Your task to perform on an android device: allow cookies in the chrome app Image 0: 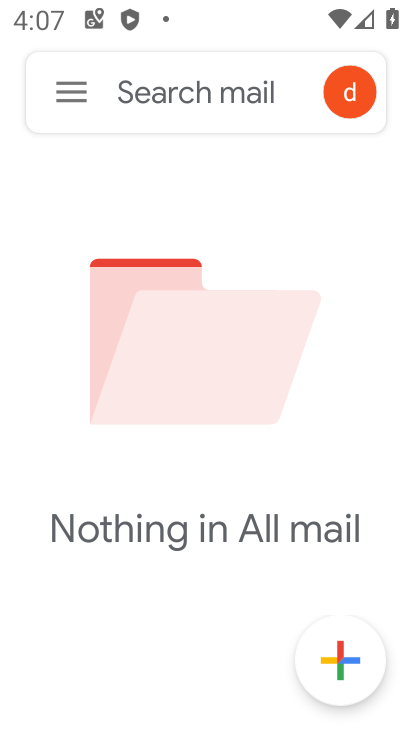
Step 0: press home button
Your task to perform on an android device: allow cookies in the chrome app Image 1: 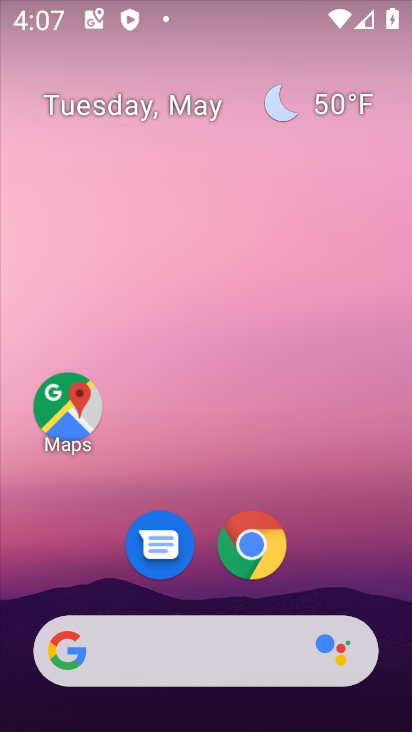
Step 1: click (257, 537)
Your task to perform on an android device: allow cookies in the chrome app Image 2: 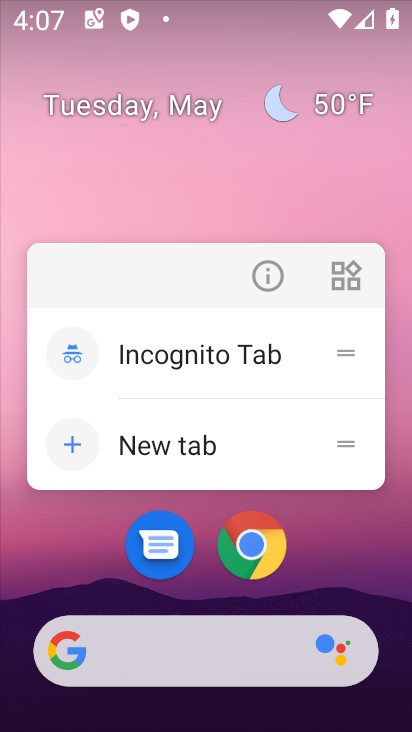
Step 2: click (251, 560)
Your task to perform on an android device: allow cookies in the chrome app Image 3: 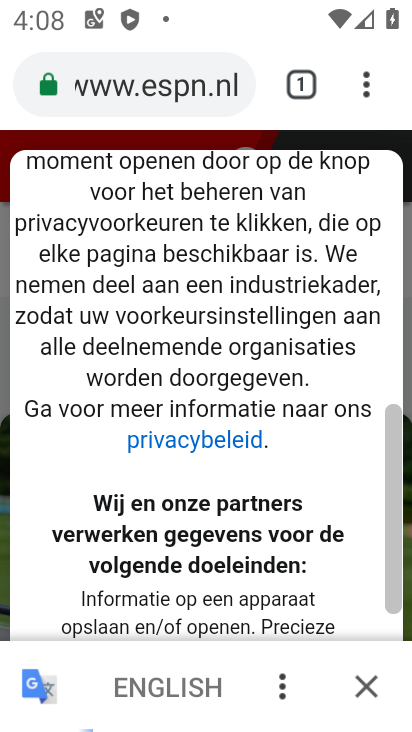
Step 3: click (364, 100)
Your task to perform on an android device: allow cookies in the chrome app Image 4: 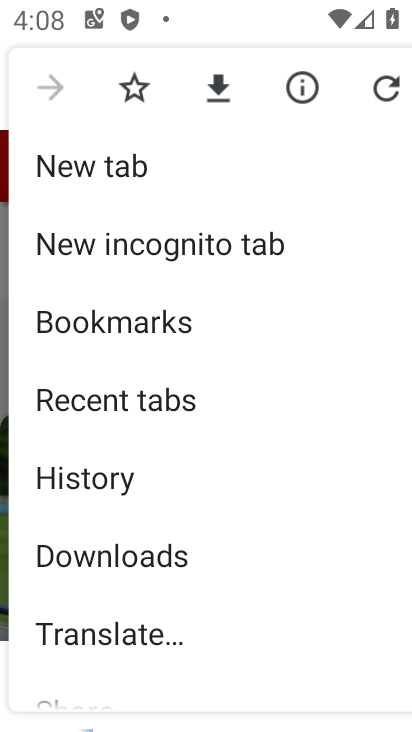
Step 4: drag from (179, 529) to (201, 283)
Your task to perform on an android device: allow cookies in the chrome app Image 5: 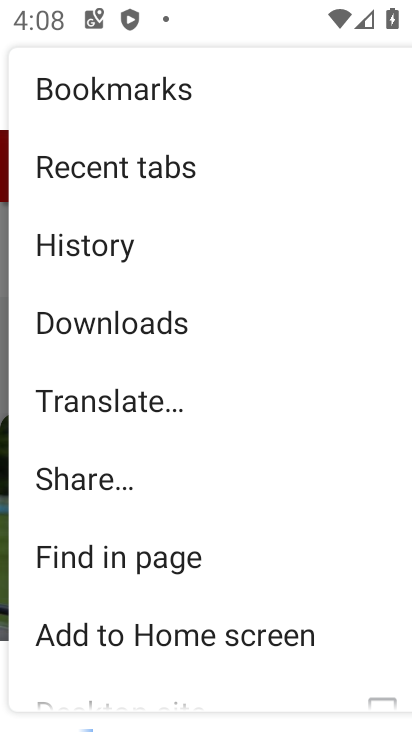
Step 5: drag from (163, 577) to (195, 248)
Your task to perform on an android device: allow cookies in the chrome app Image 6: 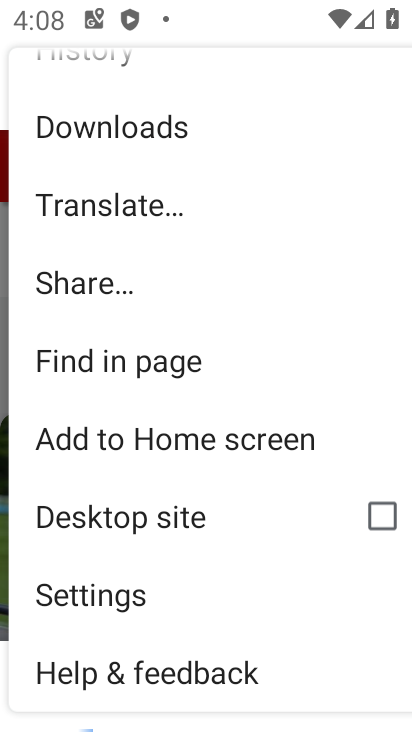
Step 6: click (123, 584)
Your task to perform on an android device: allow cookies in the chrome app Image 7: 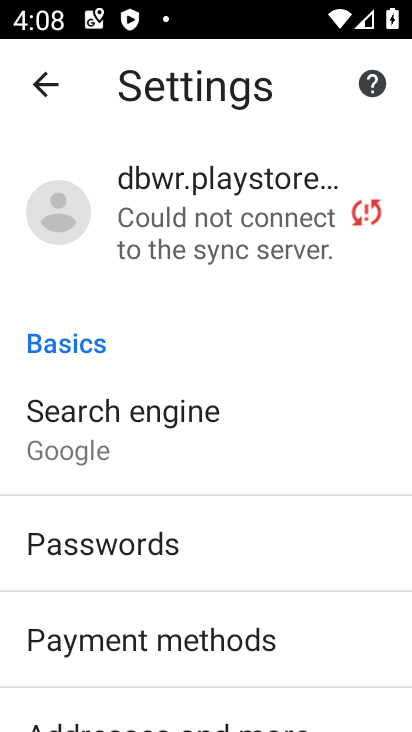
Step 7: drag from (129, 623) to (165, 329)
Your task to perform on an android device: allow cookies in the chrome app Image 8: 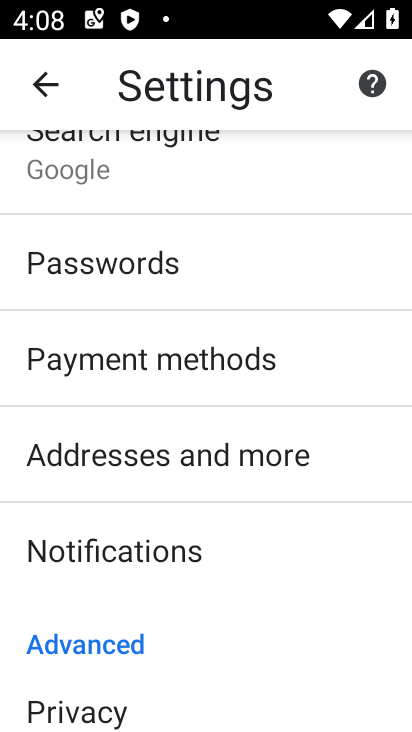
Step 8: drag from (184, 602) to (219, 313)
Your task to perform on an android device: allow cookies in the chrome app Image 9: 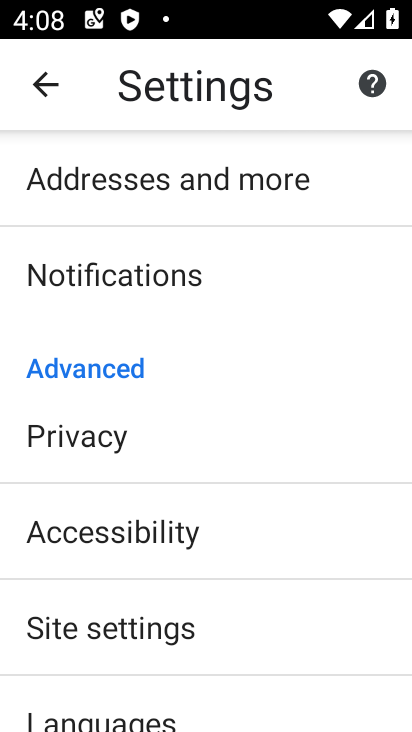
Step 9: drag from (171, 655) to (216, 441)
Your task to perform on an android device: allow cookies in the chrome app Image 10: 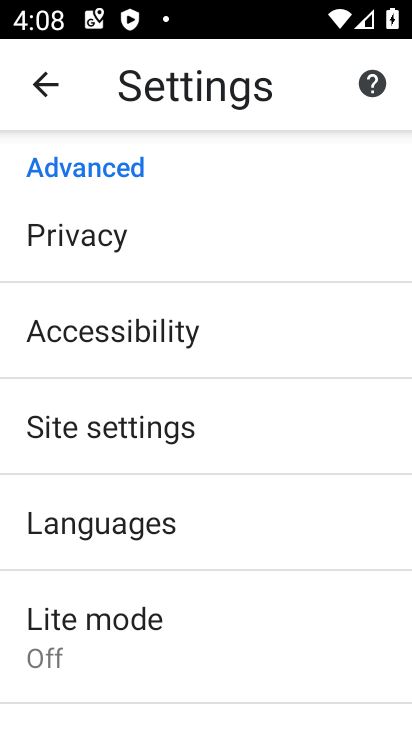
Step 10: click (145, 442)
Your task to perform on an android device: allow cookies in the chrome app Image 11: 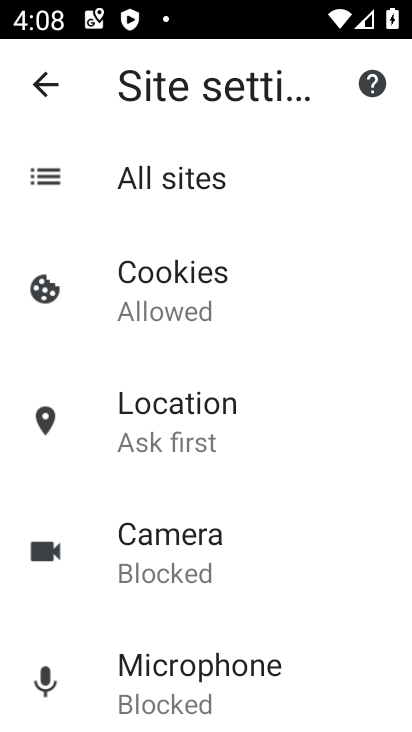
Step 11: click (206, 311)
Your task to perform on an android device: allow cookies in the chrome app Image 12: 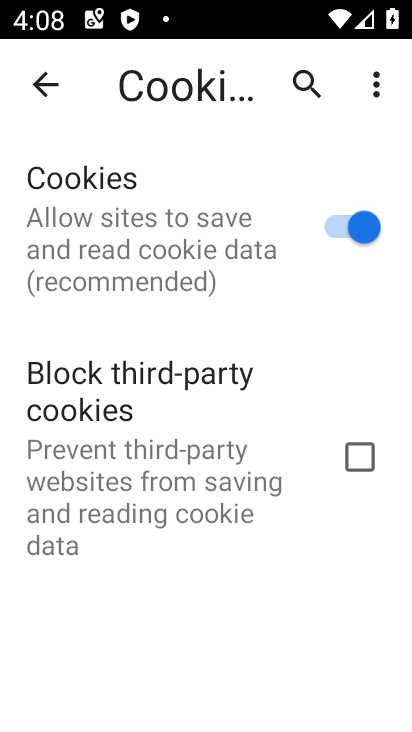
Step 12: task complete